Your task to perform on an android device: Open Maps and search for coffee Image 0: 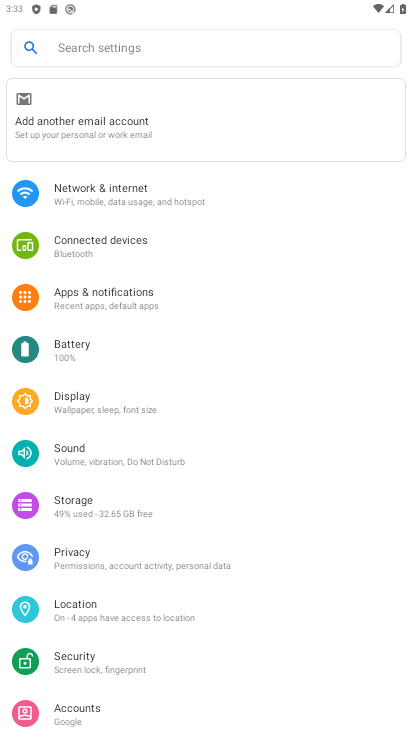
Step 0: press back button
Your task to perform on an android device: Open Maps and search for coffee Image 1: 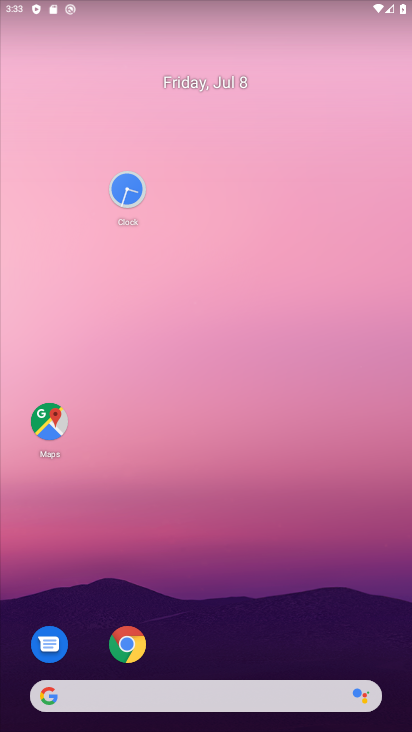
Step 1: drag from (156, 433) to (80, 172)
Your task to perform on an android device: Open Maps and search for coffee Image 2: 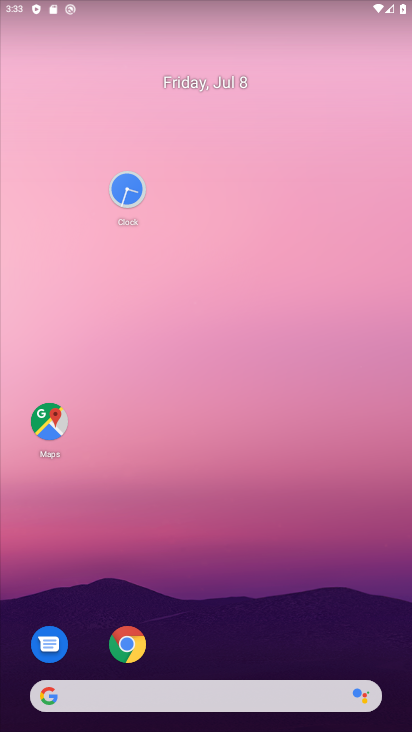
Step 2: drag from (224, 633) to (132, 83)
Your task to perform on an android device: Open Maps and search for coffee Image 3: 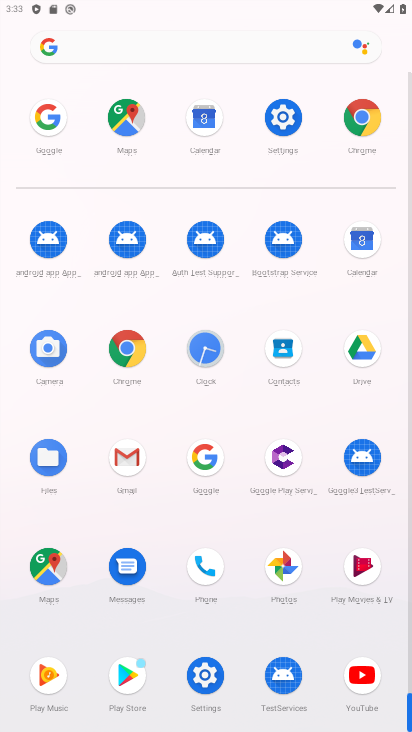
Step 3: click (42, 572)
Your task to perform on an android device: Open Maps and search for coffee Image 4: 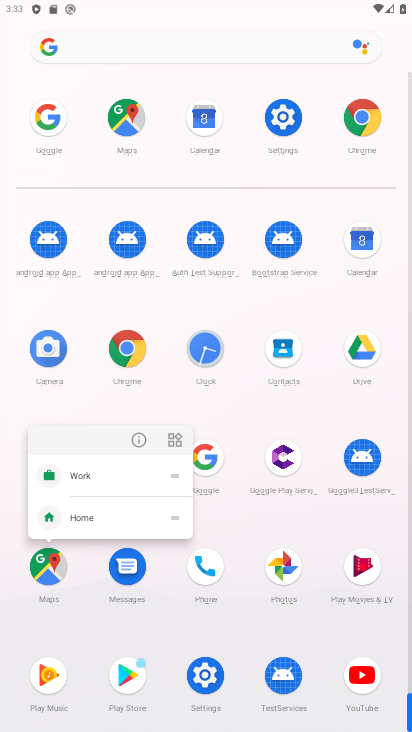
Step 4: click (43, 576)
Your task to perform on an android device: Open Maps and search for coffee Image 5: 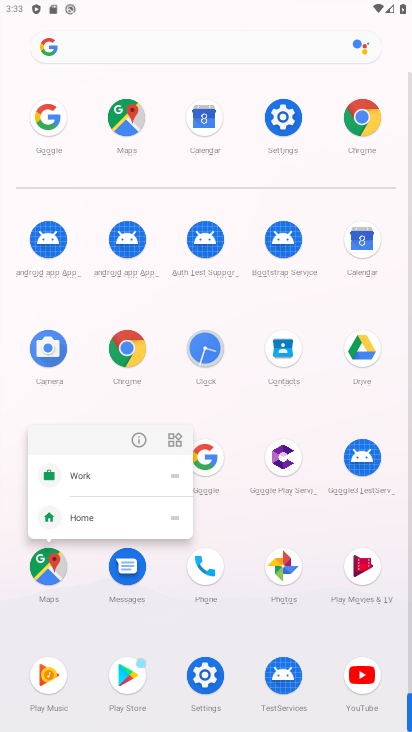
Step 5: click (47, 571)
Your task to perform on an android device: Open Maps and search for coffee Image 6: 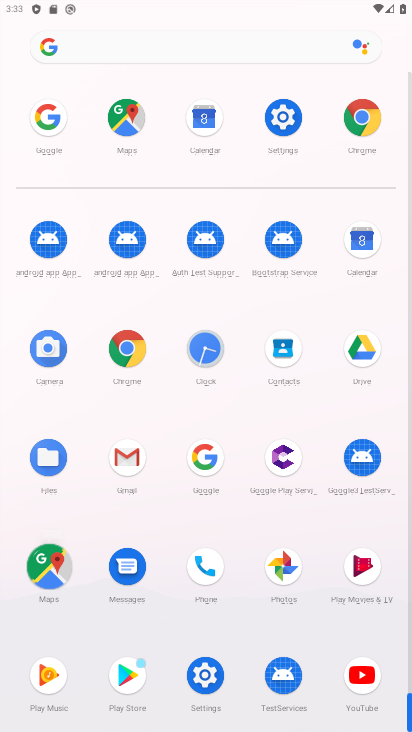
Step 6: click (55, 563)
Your task to perform on an android device: Open Maps and search for coffee Image 7: 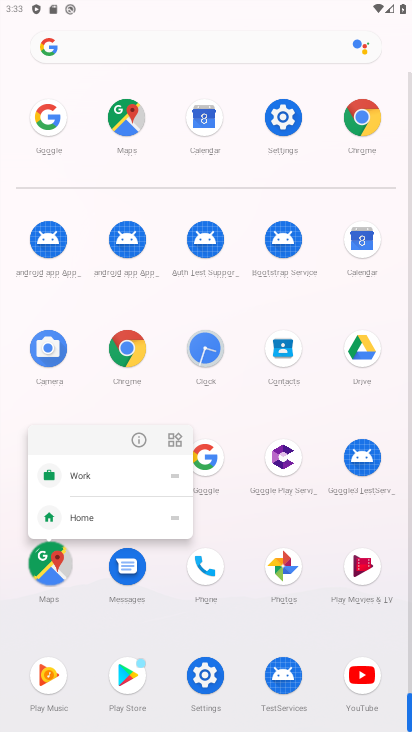
Step 7: click (55, 563)
Your task to perform on an android device: Open Maps and search for coffee Image 8: 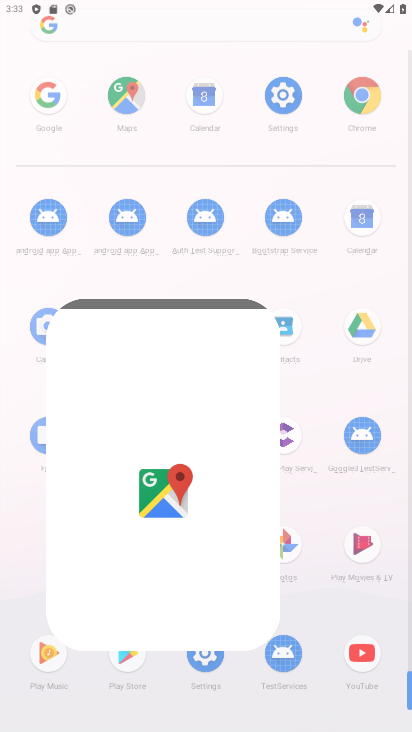
Step 8: click (55, 563)
Your task to perform on an android device: Open Maps and search for coffee Image 9: 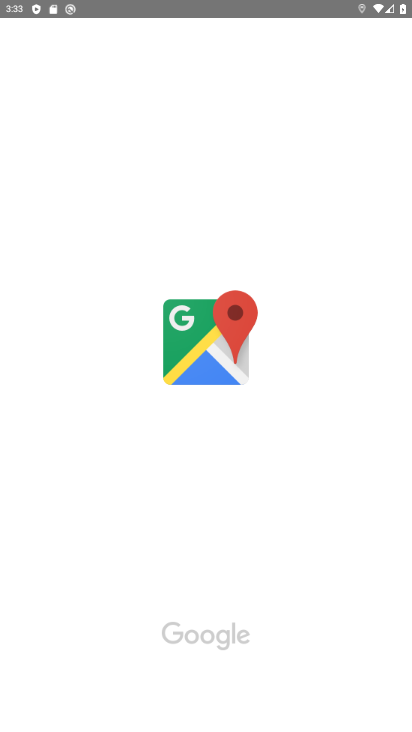
Step 9: click (53, 559)
Your task to perform on an android device: Open Maps and search for coffee Image 10: 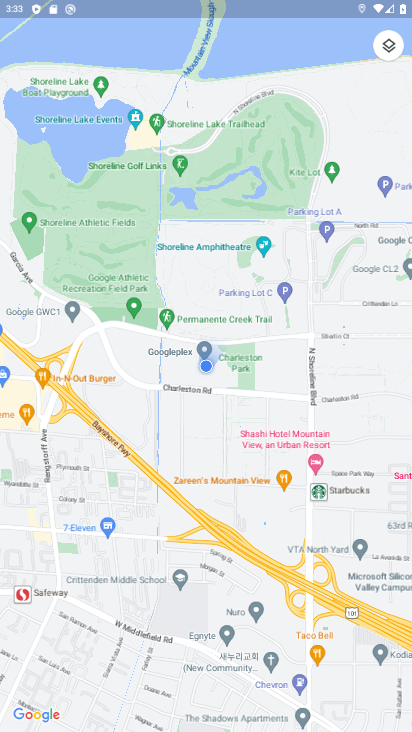
Step 10: drag from (151, 229) to (161, 339)
Your task to perform on an android device: Open Maps and search for coffee Image 11: 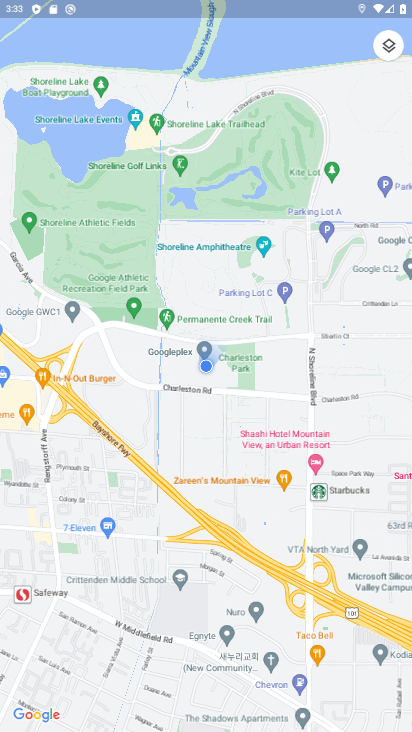
Step 11: drag from (105, 74) to (134, 220)
Your task to perform on an android device: Open Maps and search for coffee Image 12: 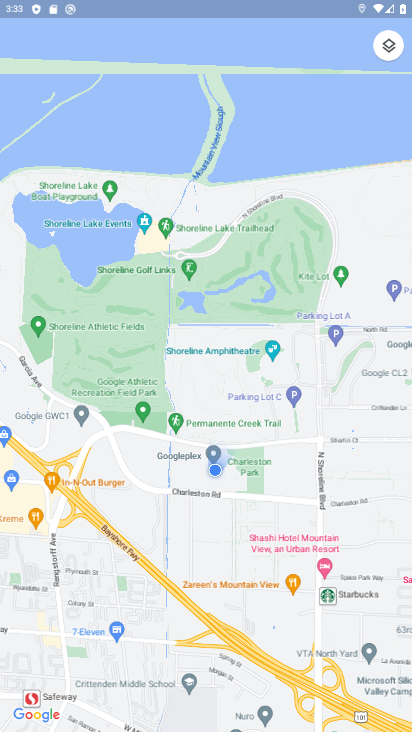
Step 12: drag from (140, 268) to (160, 355)
Your task to perform on an android device: Open Maps and search for coffee Image 13: 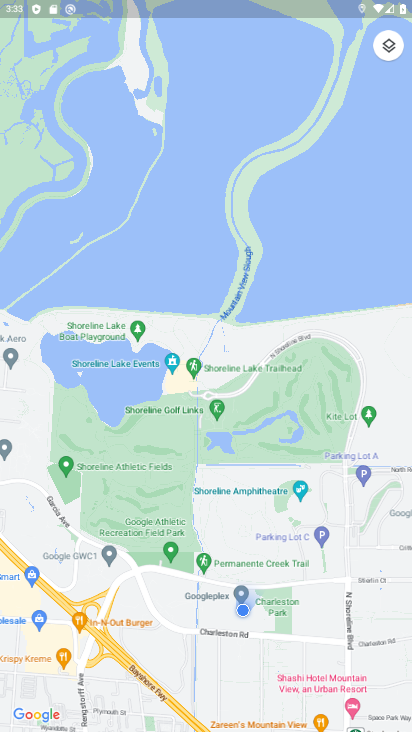
Step 13: click (99, 353)
Your task to perform on an android device: Open Maps and search for coffee Image 14: 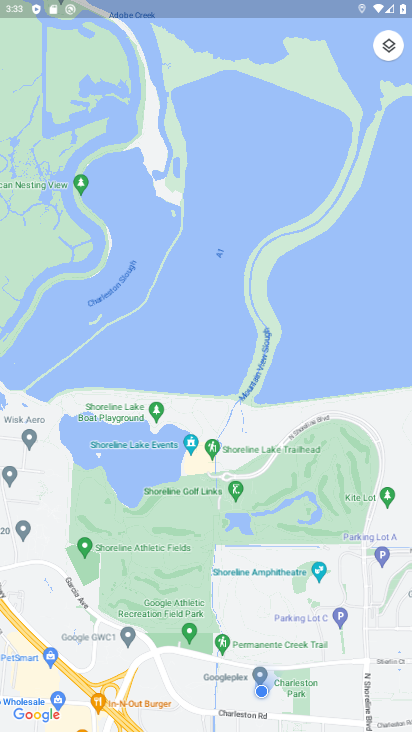
Step 14: drag from (96, 269) to (147, 451)
Your task to perform on an android device: Open Maps and search for coffee Image 15: 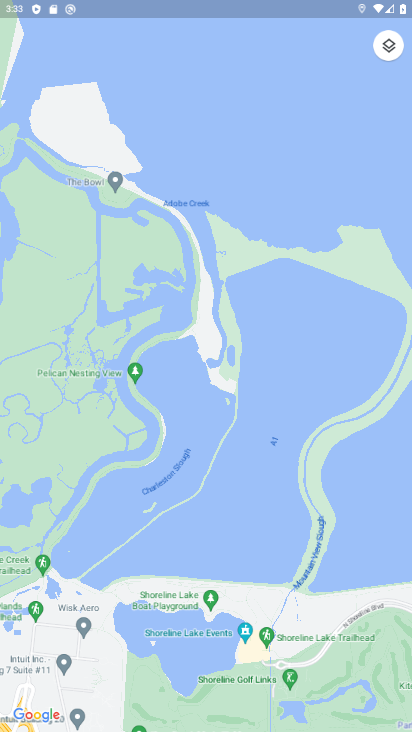
Step 15: drag from (205, 507) to (173, 395)
Your task to perform on an android device: Open Maps and search for coffee Image 16: 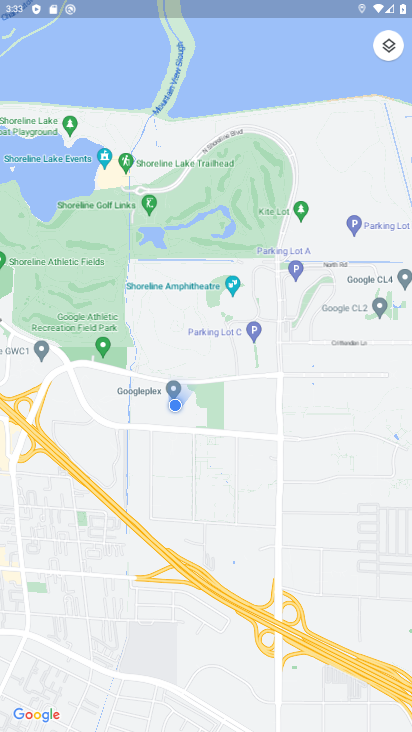
Step 16: click (365, 521)
Your task to perform on an android device: Open Maps and search for coffee Image 17: 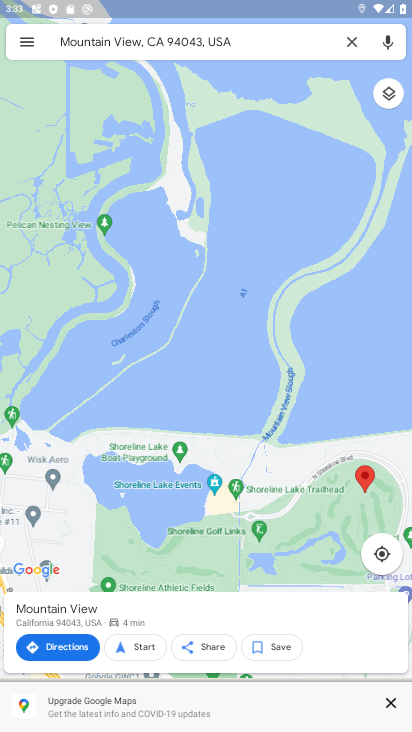
Step 17: type "coffee"
Your task to perform on an android device: Open Maps and search for coffee Image 18: 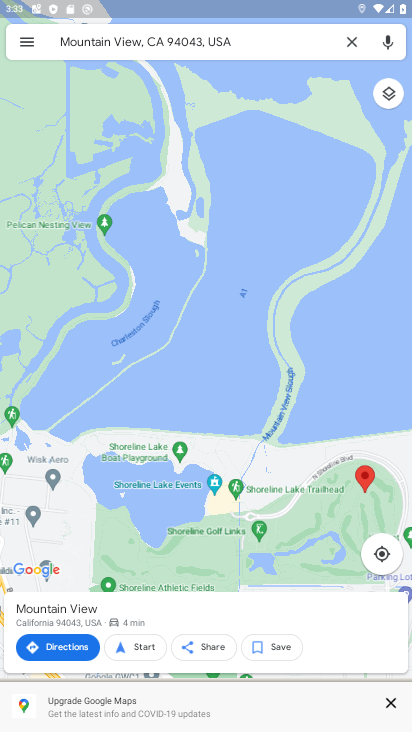
Step 18: drag from (365, 521) to (411, 63)
Your task to perform on an android device: Open Maps and search for coffee Image 19: 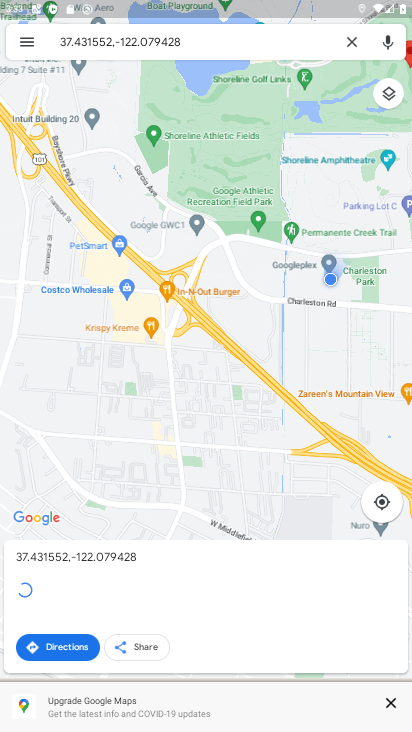
Step 19: click (191, 43)
Your task to perform on an android device: Open Maps and search for coffee Image 20: 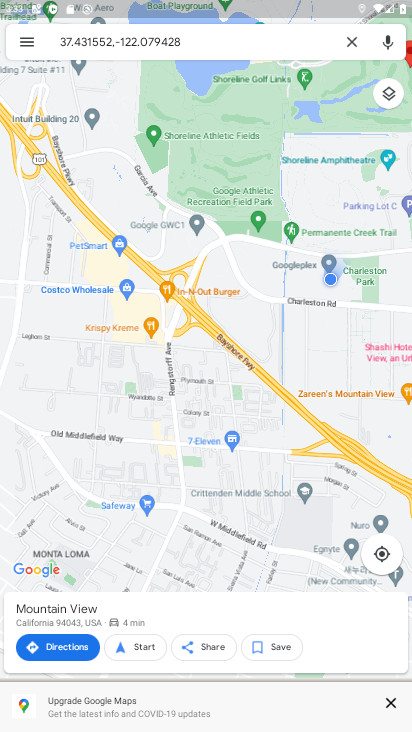
Step 20: click (192, 42)
Your task to perform on an android device: Open Maps and search for coffee Image 21: 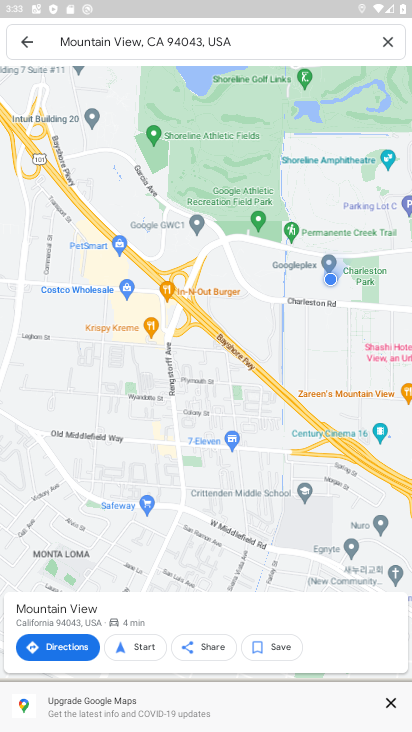
Step 21: click (349, 48)
Your task to perform on an android device: Open Maps and search for coffee Image 22: 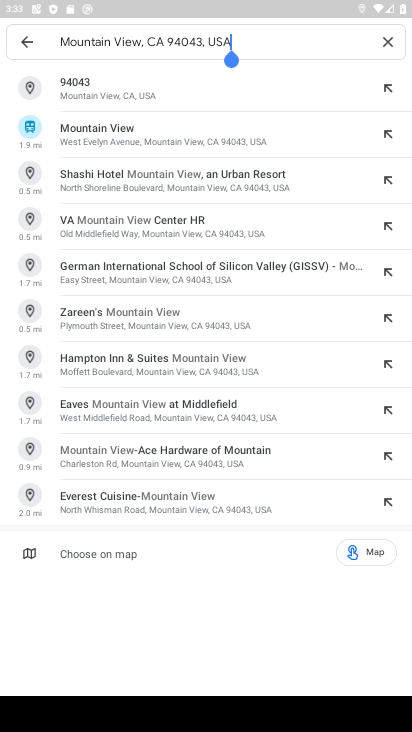
Step 22: click (385, 41)
Your task to perform on an android device: Open Maps and search for coffee Image 23: 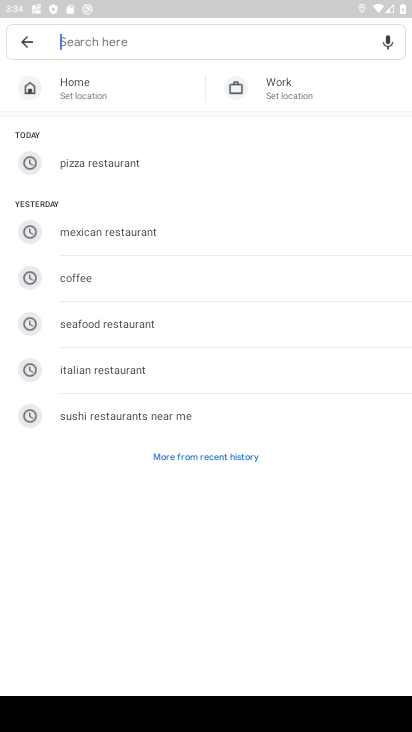
Step 23: type "coffee"
Your task to perform on an android device: Open Maps and search for coffee Image 24: 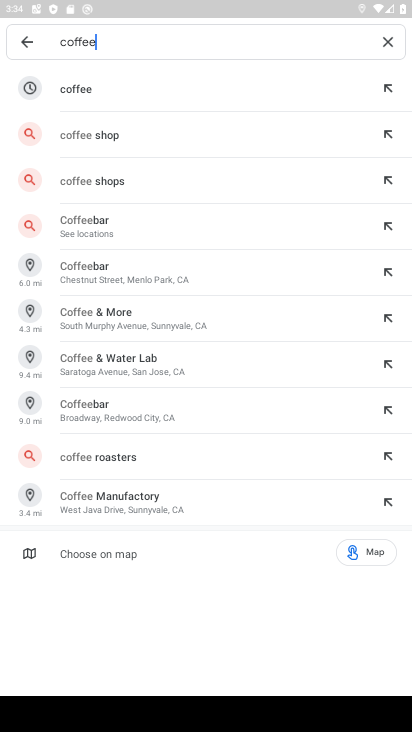
Step 24: task complete